Your task to perform on an android device: allow cookies in the chrome app Image 0: 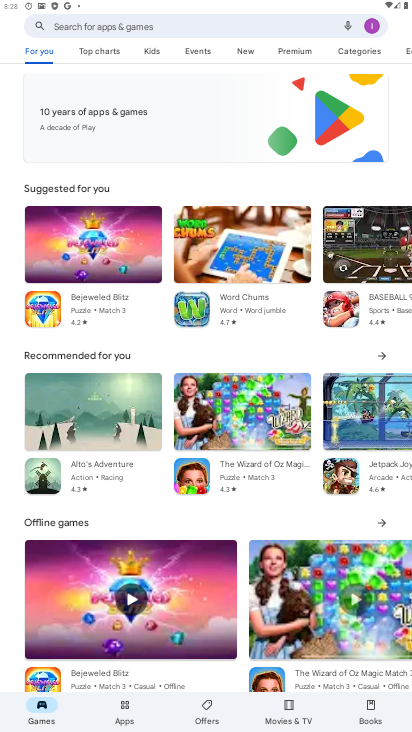
Step 0: drag from (211, 543) to (224, 361)
Your task to perform on an android device: allow cookies in the chrome app Image 1: 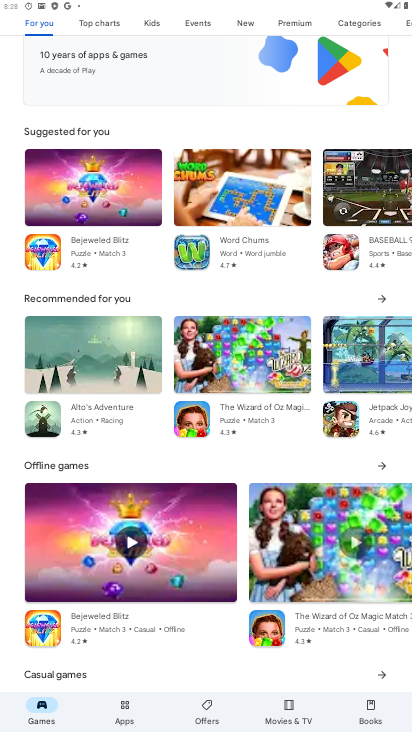
Step 1: drag from (229, 357) to (320, 706)
Your task to perform on an android device: allow cookies in the chrome app Image 2: 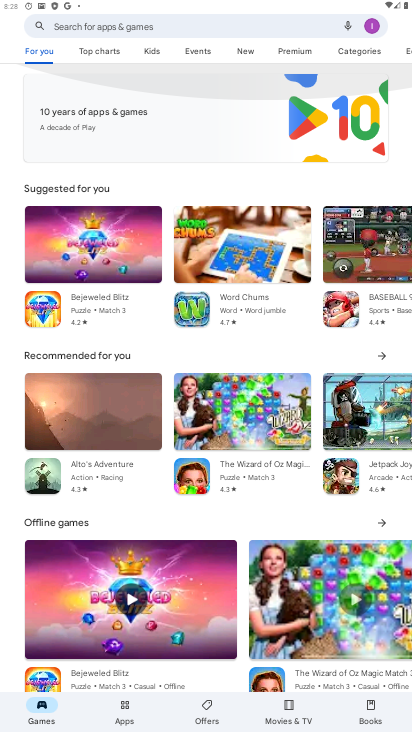
Step 2: press home button
Your task to perform on an android device: allow cookies in the chrome app Image 3: 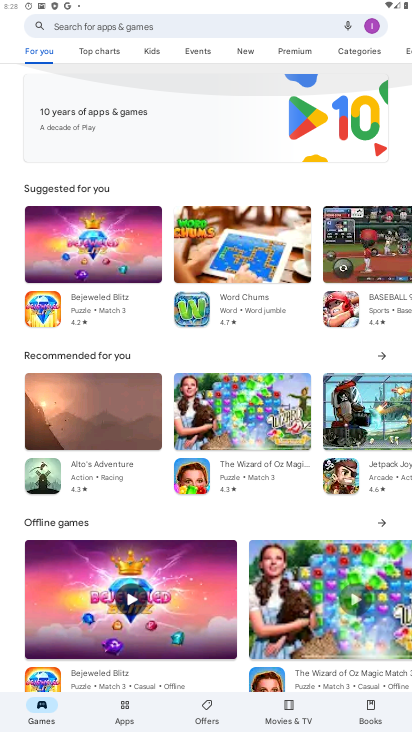
Step 3: click (408, 533)
Your task to perform on an android device: allow cookies in the chrome app Image 4: 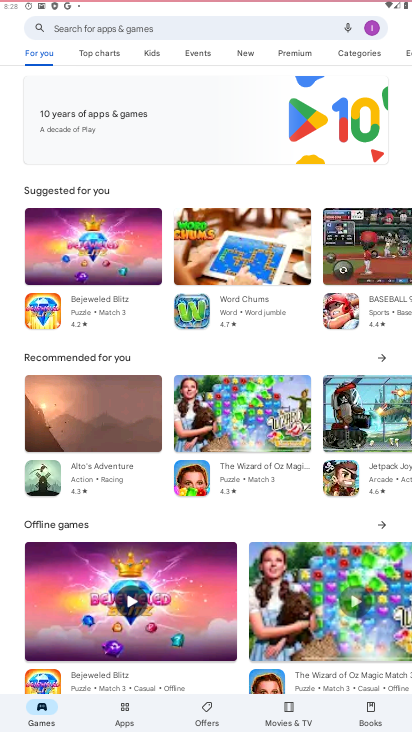
Step 4: press home button
Your task to perform on an android device: allow cookies in the chrome app Image 5: 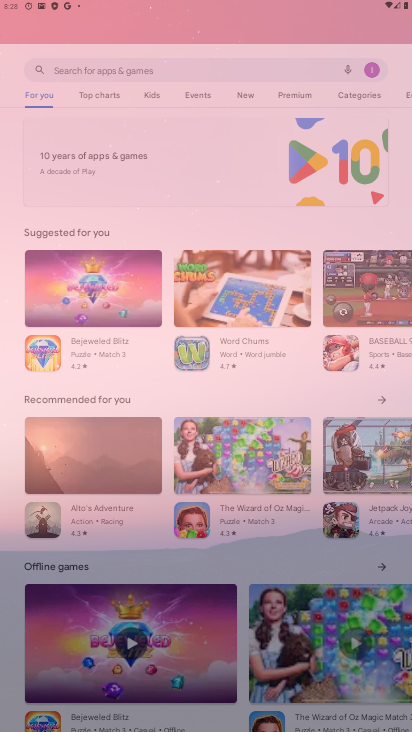
Step 5: drag from (240, 129) to (289, 193)
Your task to perform on an android device: allow cookies in the chrome app Image 6: 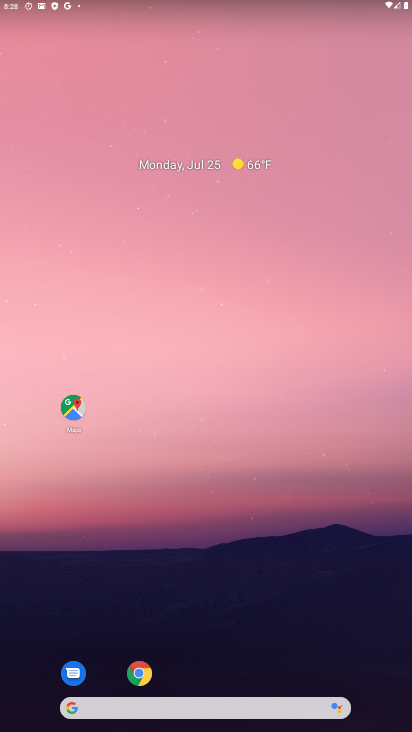
Step 6: drag from (195, 675) to (264, 248)
Your task to perform on an android device: allow cookies in the chrome app Image 7: 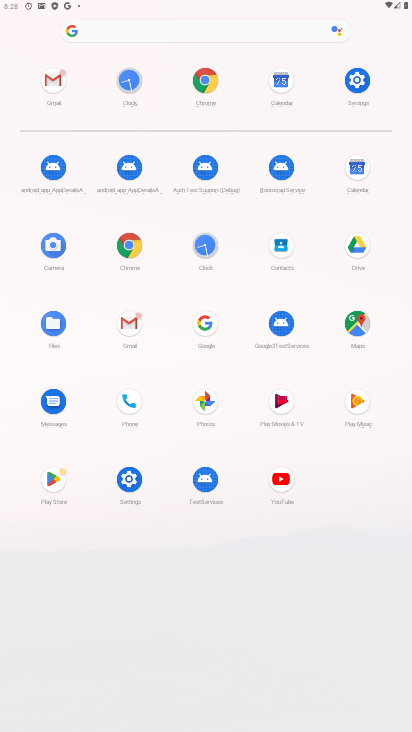
Step 7: click (128, 237)
Your task to perform on an android device: allow cookies in the chrome app Image 8: 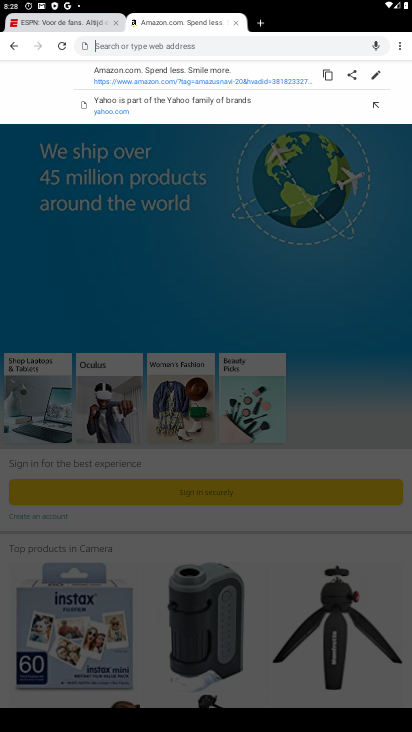
Step 8: drag from (399, 46) to (334, 311)
Your task to perform on an android device: allow cookies in the chrome app Image 9: 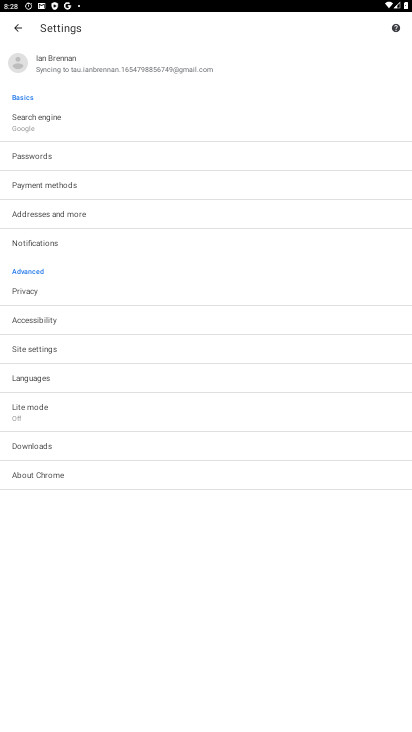
Step 9: click (35, 352)
Your task to perform on an android device: allow cookies in the chrome app Image 10: 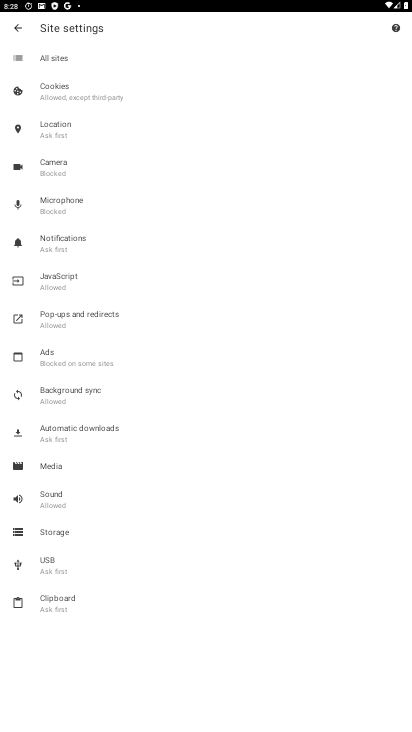
Step 10: click (102, 90)
Your task to perform on an android device: allow cookies in the chrome app Image 11: 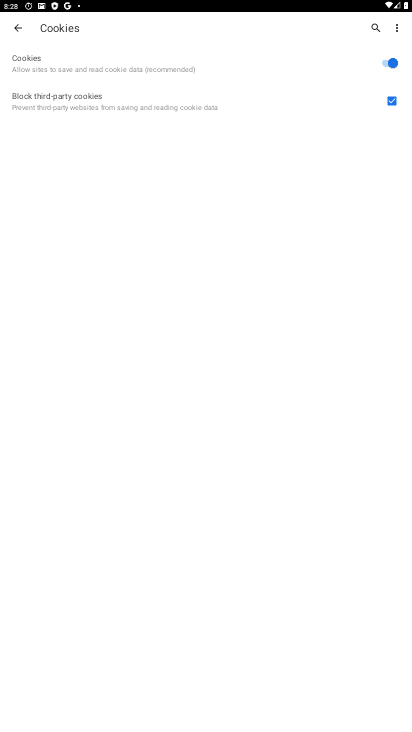
Step 11: task complete